Your task to perform on an android device: uninstall "Gmail" Image 0: 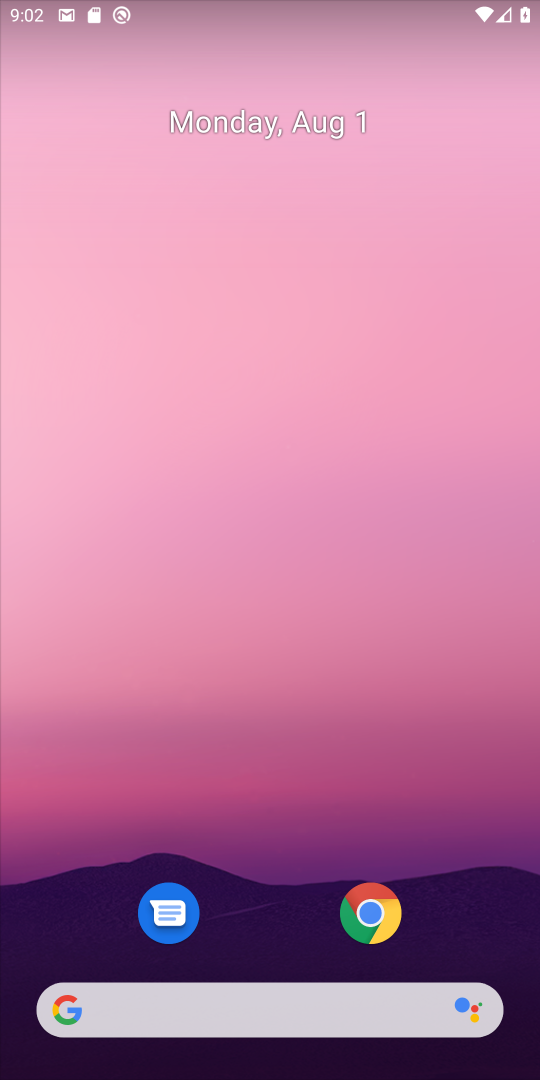
Step 0: drag from (231, 1001) to (306, 151)
Your task to perform on an android device: uninstall "Gmail" Image 1: 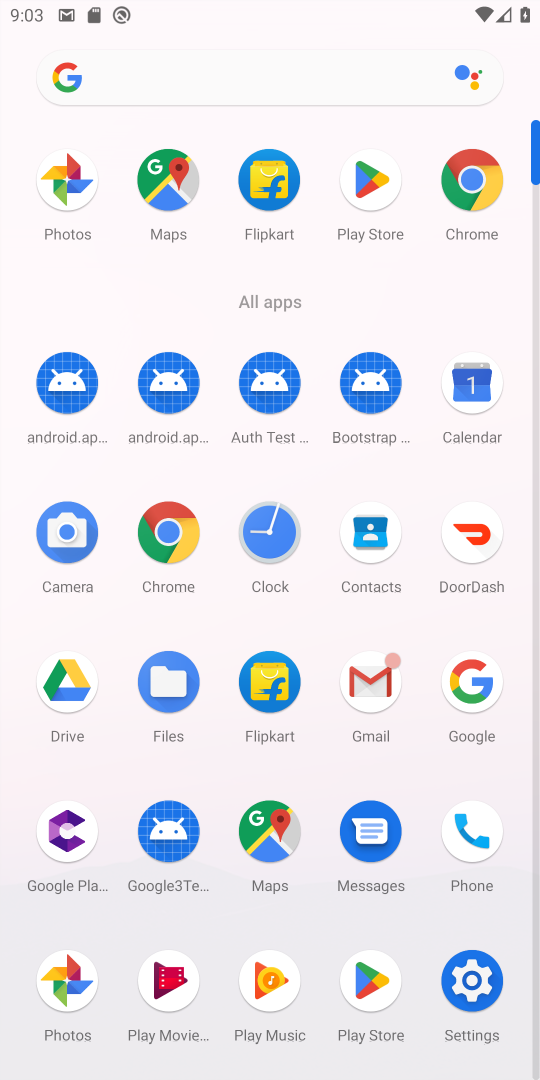
Step 1: click (382, 195)
Your task to perform on an android device: uninstall "Gmail" Image 2: 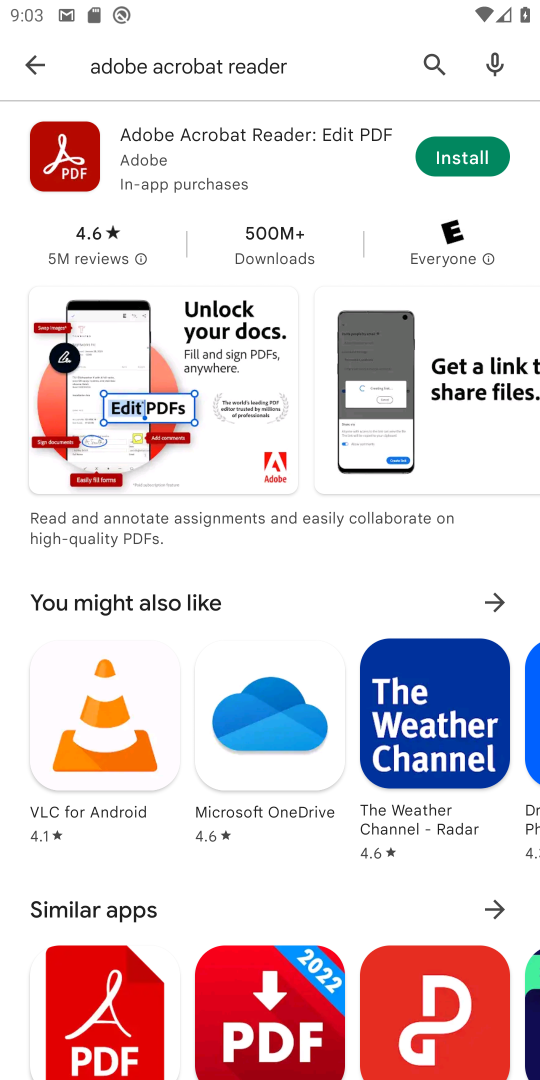
Step 2: click (445, 63)
Your task to perform on an android device: uninstall "Gmail" Image 3: 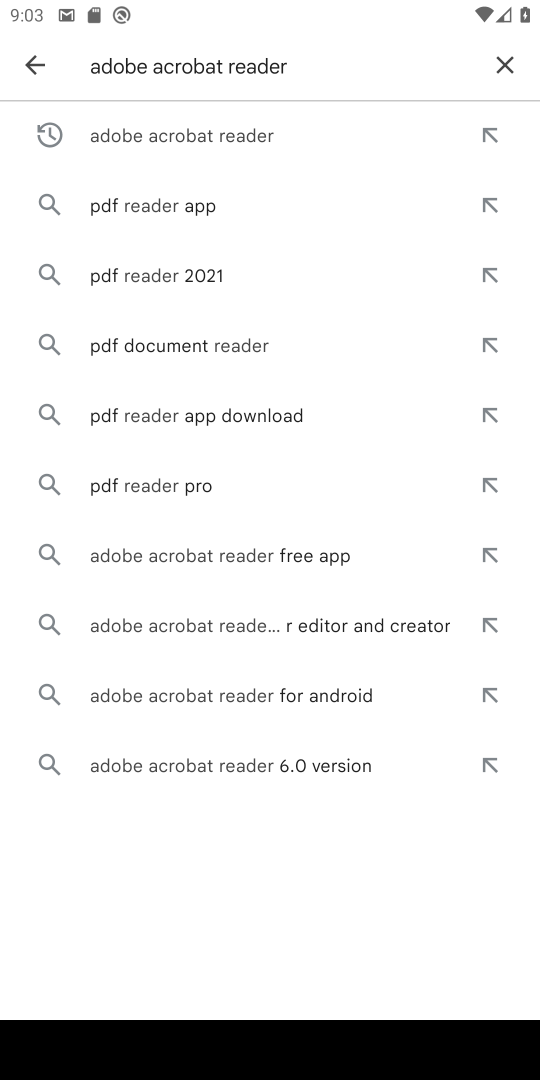
Step 3: click (501, 62)
Your task to perform on an android device: uninstall "Gmail" Image 4: 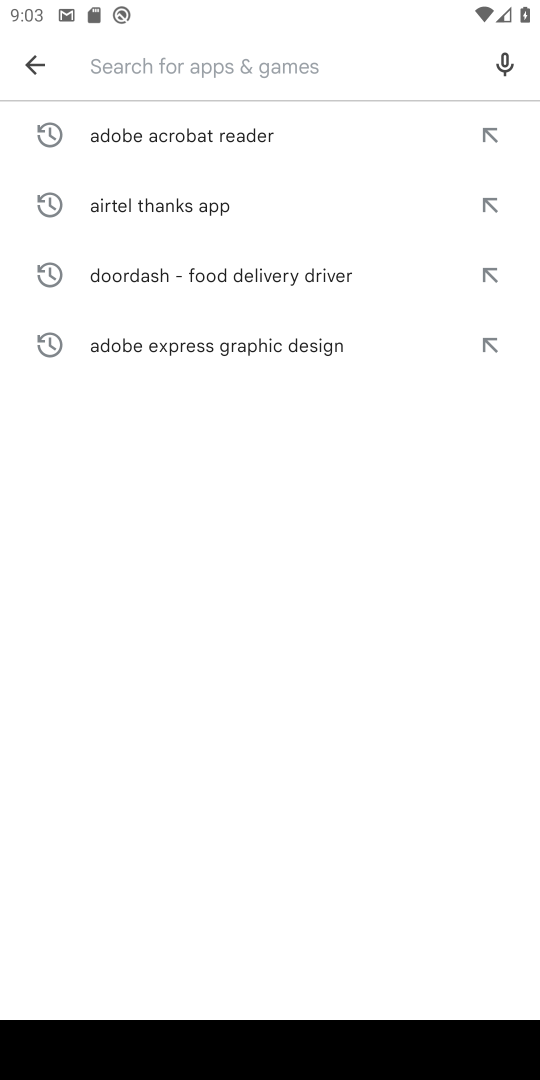
Step 4: type "gmail"
Your task to perform on an android device: uninstall "Gmail" Image 5: 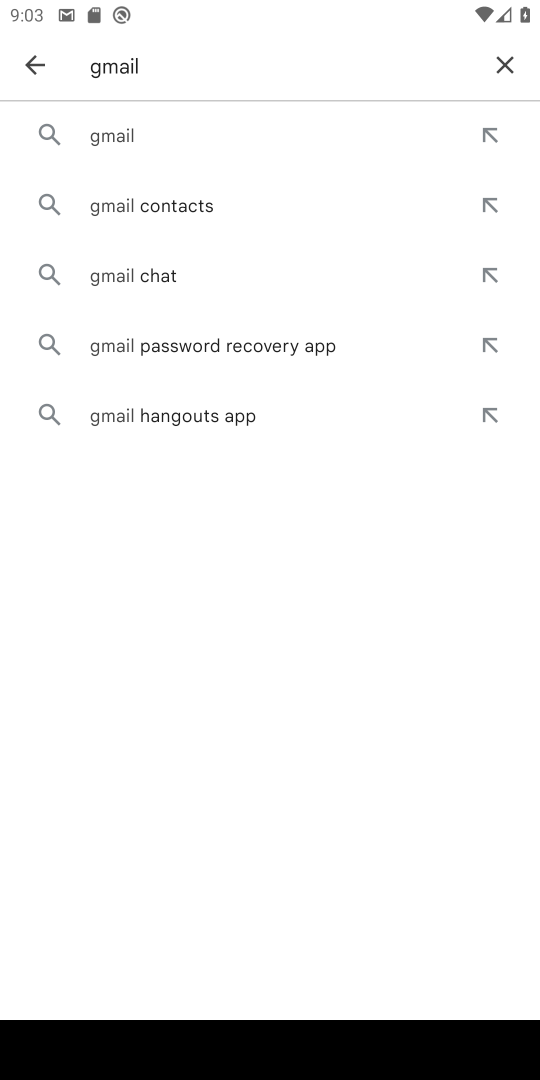
Step 5: click (124, 136)
Your task to perform on an android device: uninstall "Gmail" Image 6: 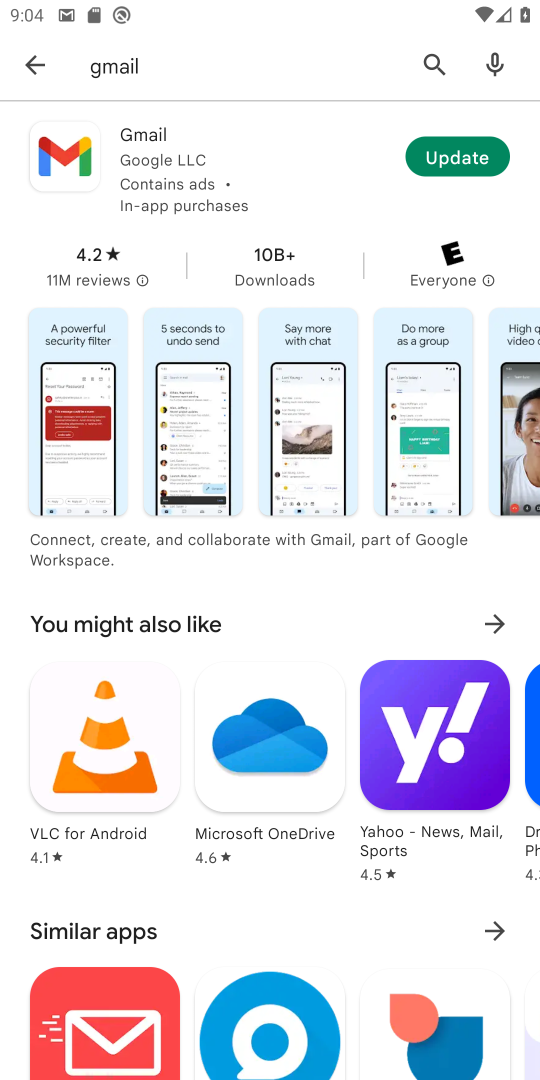
Step 6: task complete